Your task to perform on an android device: Go to notification settings Image 0: 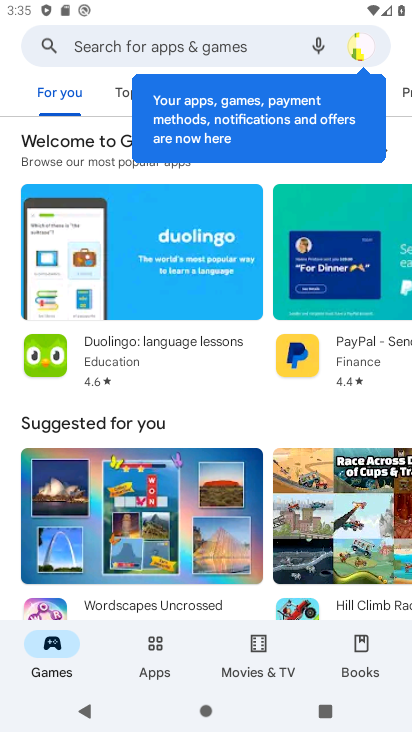
Step 0: press back button
Your task to perform on an android device: Go to notification settings Image 1: 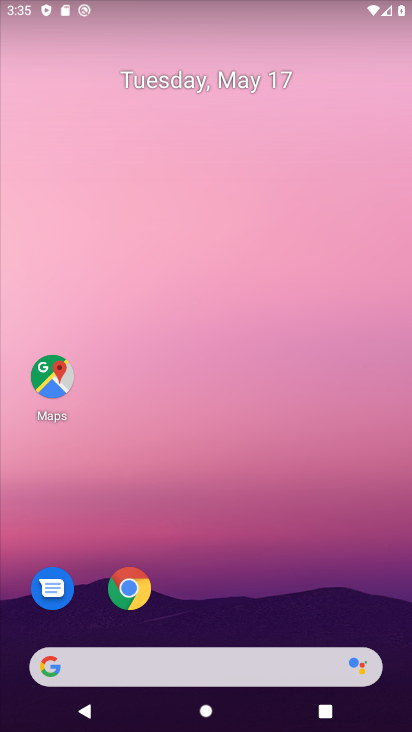
Step 1: drag from (247, 566) to (169, 118)
Your task to perform on an android device: Go to notification settings Image 2: 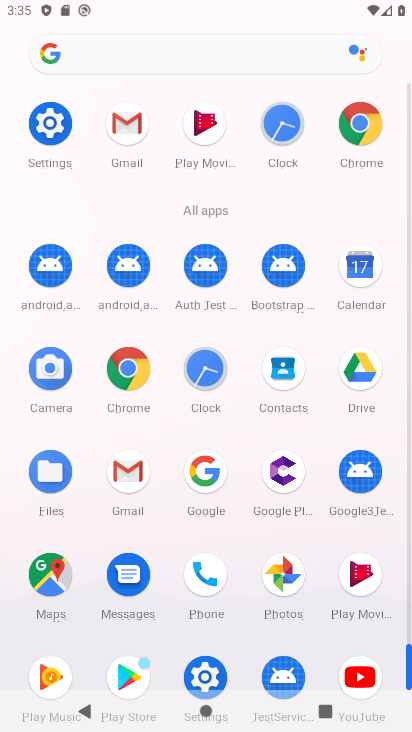
Step 2: click (50, 124)
Your task to perform on an android device: Go to notification settings Image 3: 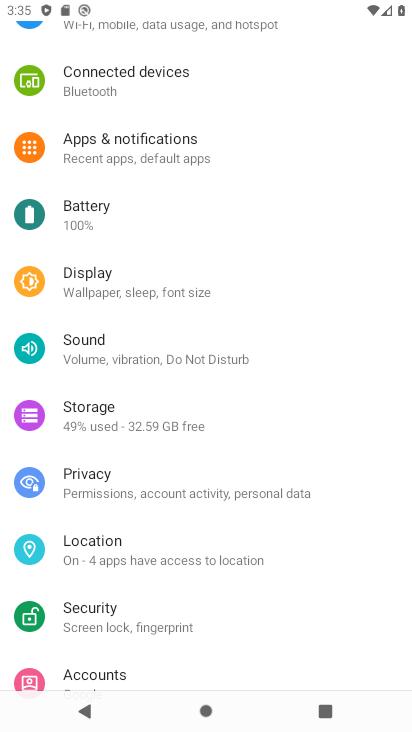
Step 3: drag from (178, 262) to (180, 351)
Your task to perform on an android device: Go to notification settings Image 4: 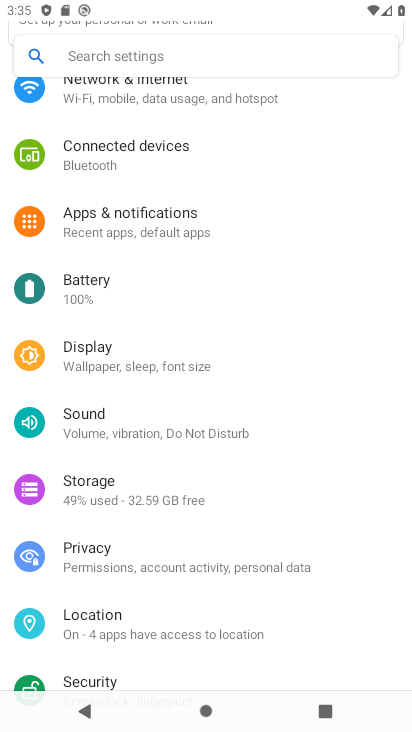
Step 4: click (166, 215)
Your task to perform on an android device: Go to notification settings Image 5: 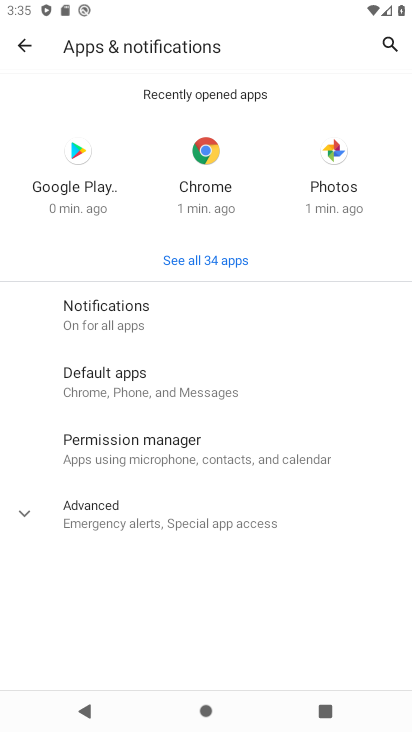
Step 5: click (122, 311)
Your task to perform on an android device: Go to notification settings Image 6: 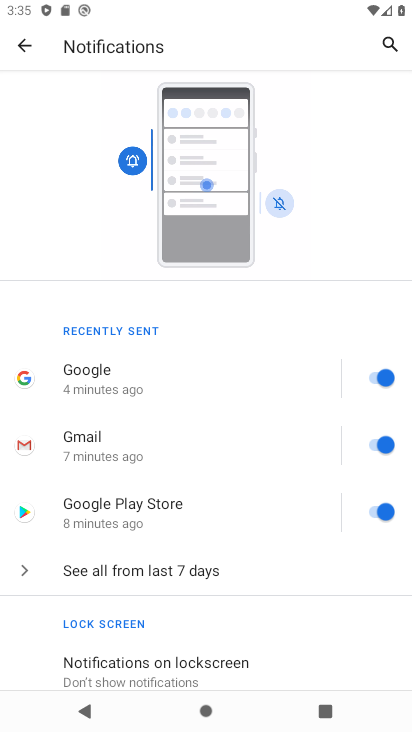
Step 6: task complete